Your task to perform on an android device: Search for "logitech g502" on target, select the first entry, and add it to the cart. Image 0: 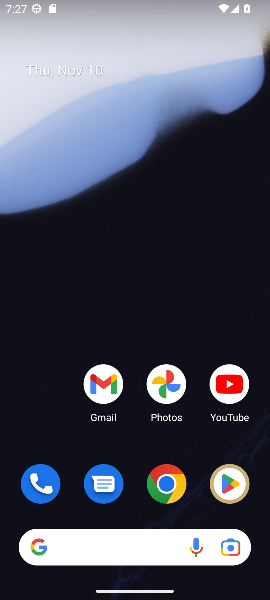
Step 0: click (169, 486)
Your task to perform on an android device: Search for "logitech g502" on target, select the first entry, and add it to the cart. Image 1: 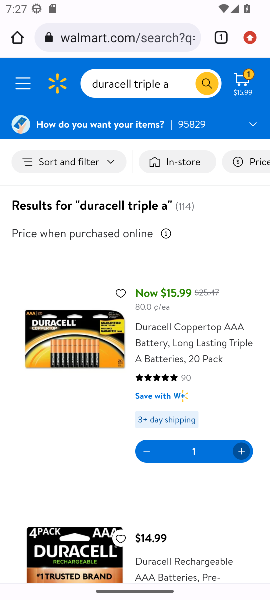
Step 1: click (103, 40)
Your task to perform on an android device: Search for "logitech g502" on target, select the first entry, and add it to the cart. Image 2: 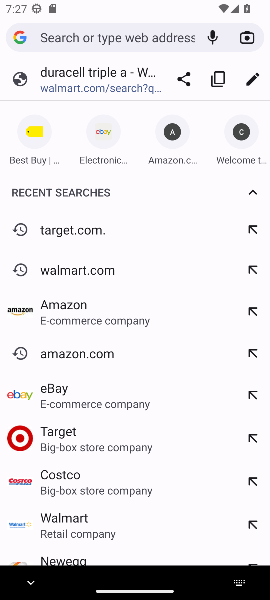
Step 2: click (69, 231)
Your task to perform on an android device: Search for "logitech g502" on target, select the first entry, and add it to the cart. Image 3: 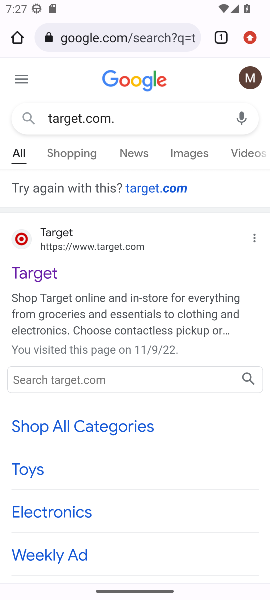
Step 3: click (62, 251)
Your task to perform on an android device: Search for "logitech g502" on target, select the first entry, and add it to the cart. Image 4: 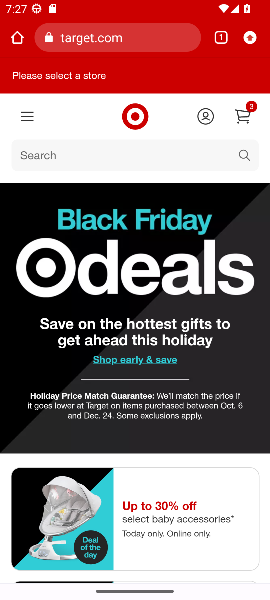
Step 4: click (244, 161)
Your task to perform on an android device: Search for "logitech g502" on target, select the first entry, and add it to the cart. Image 5: 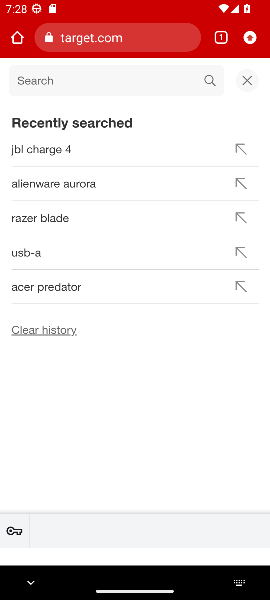
Step 5: type "logitech g502"
Your task to perform on an android device: Search for "logitech g502" on target, select the first entry, and add it to the cart. Image 6: 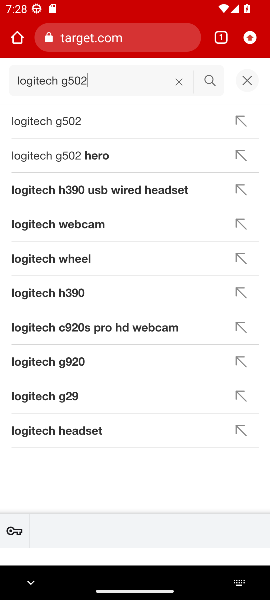
Step 6: click (52, 119)
Your task to perform on an android device: Search for "logitech g502" on target, select the first entry, and add it to the cart. Image 7: 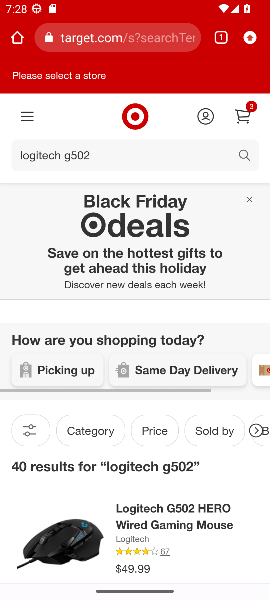
Step 7: drag from (107, 379) to (102, 235)
Your task to perform on an android device: Search for "logitech g502" on target, select the first entry, and add it to the cart. Image 8: 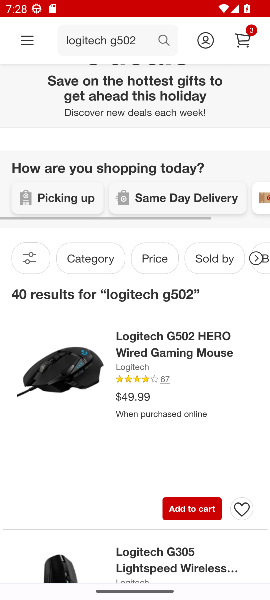
Step 8: click (200, 513)
Your task to perform on an android device: Search for "logitech g502" on target, select the first entry, and add it to the cart. Image 9: 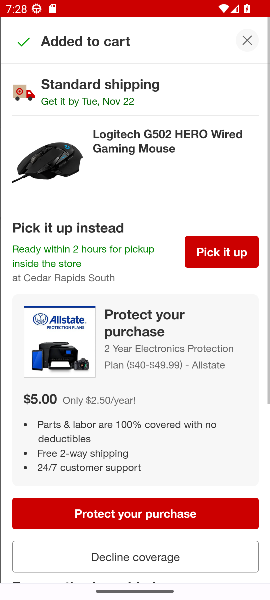
Step 9: task complete